Your task to perform on an android device: Go to Amazon Image 0: 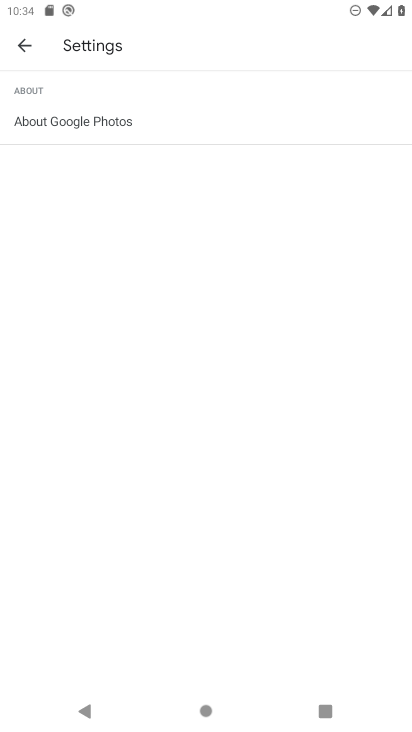
Step 0: press home button
Your task to perform on an android device: Go to Amazon Image 1: 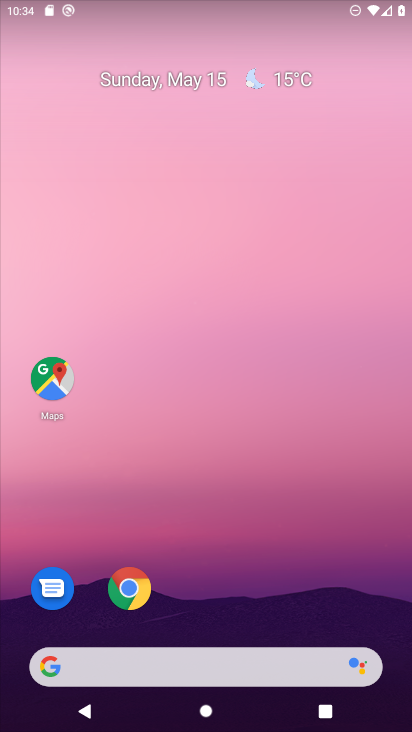
Step 1: click (141, 586)
Your task to perform on an android device: Go to Amazon Image 2: 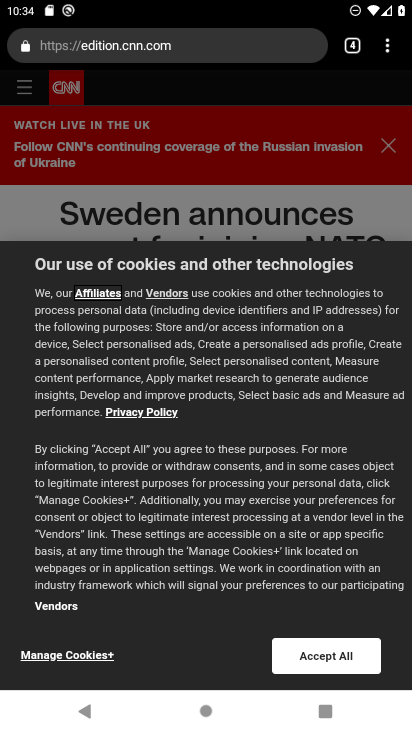
Step 2: click (397, 46)
Your task to perform on an android device: Go to Amazon Image 3: 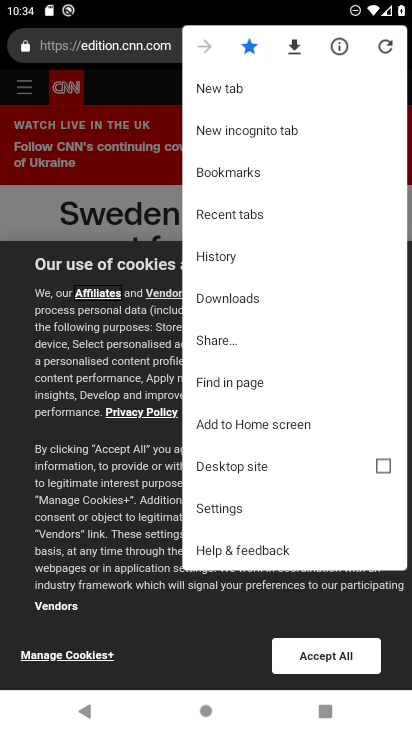
Step 3: click (232, 96)
Your task to perform on an android device: Go to Amazon Image 4: 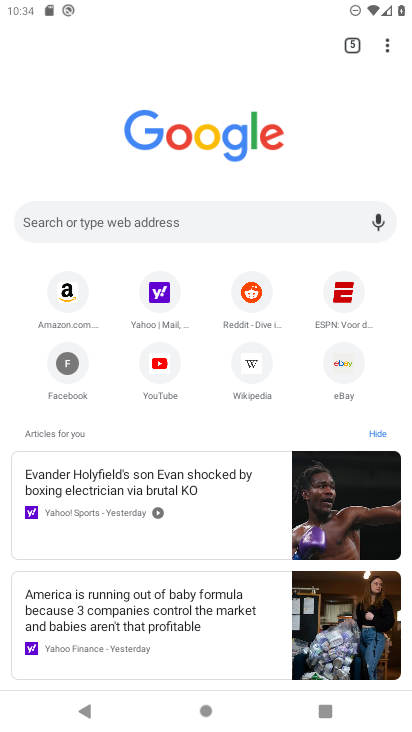
Step 4: click (61, 274)
Your task to perform on an android device: Go to Amazon Image 5: 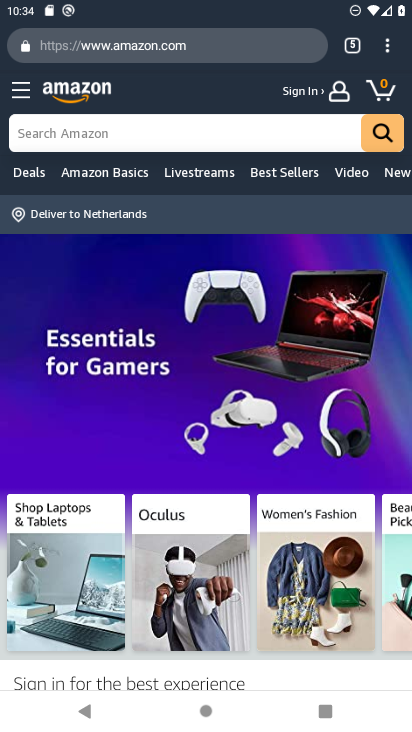
Step 5: task complete